Your task to perform on an android device: turn off location history Image 0: 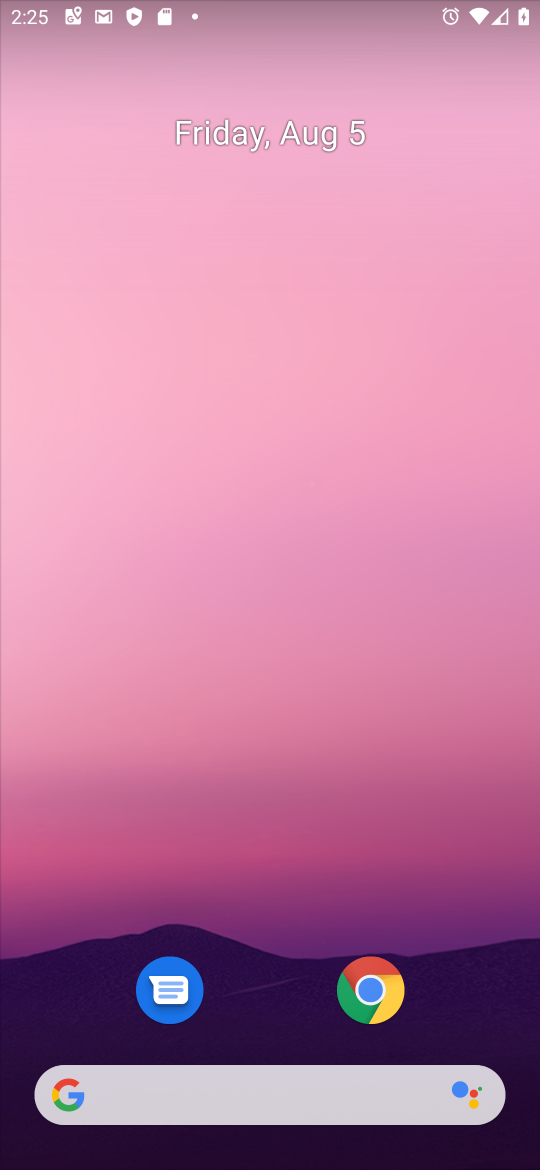
Step 0: drag from (294, 1092) to (345, 125)
Your task to perform on an android device: turn off location history Image 1: 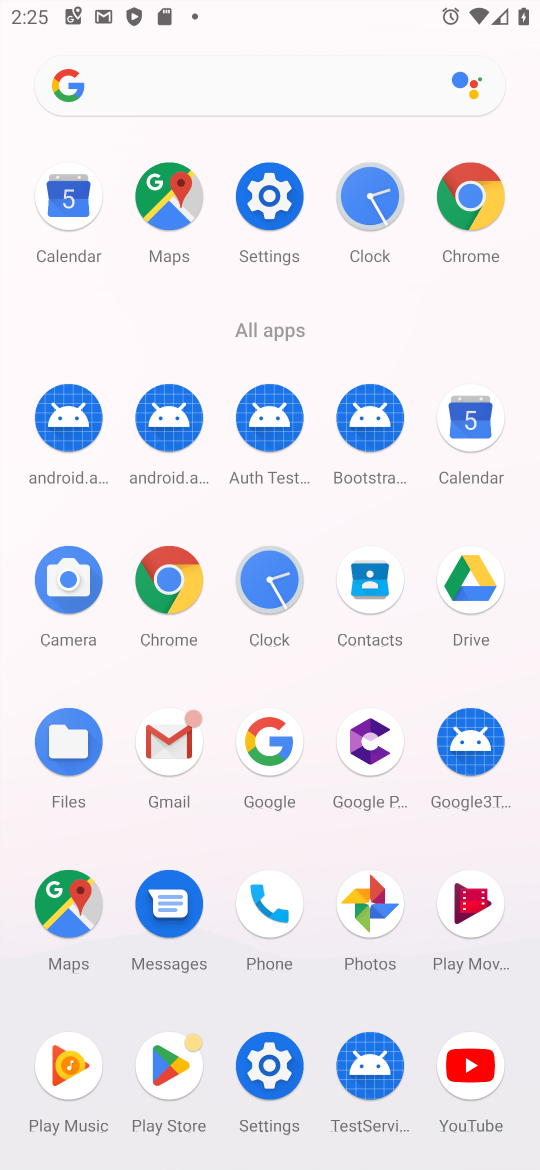
Step 1: click (289, 1062)
Your task to perform on an android device: turn off location history Image 2: 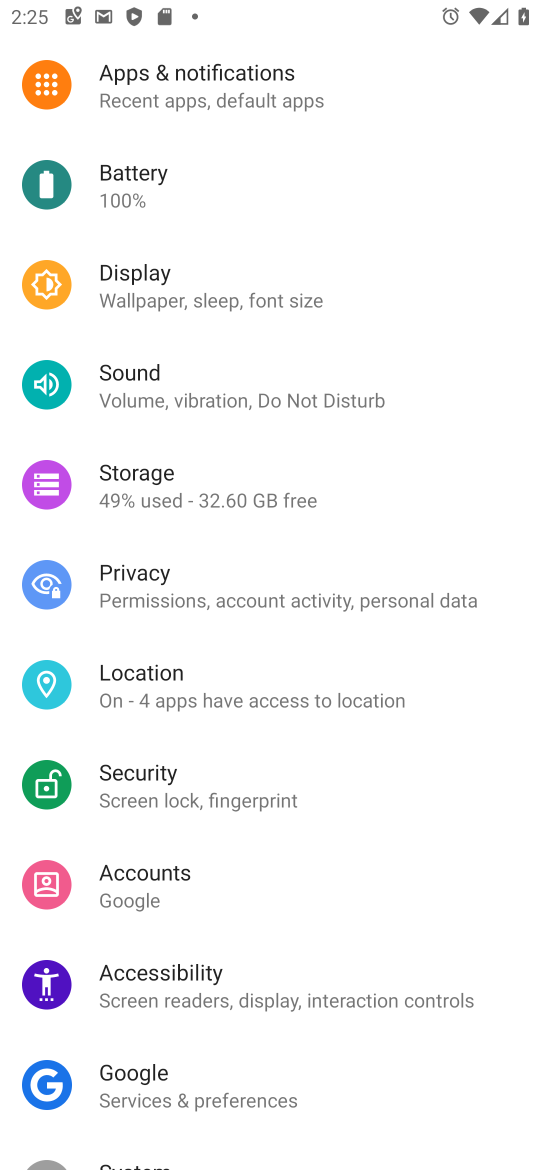
Step 2: click (234, 700)
Your task to perform on an android device: turn off location history Image 3: 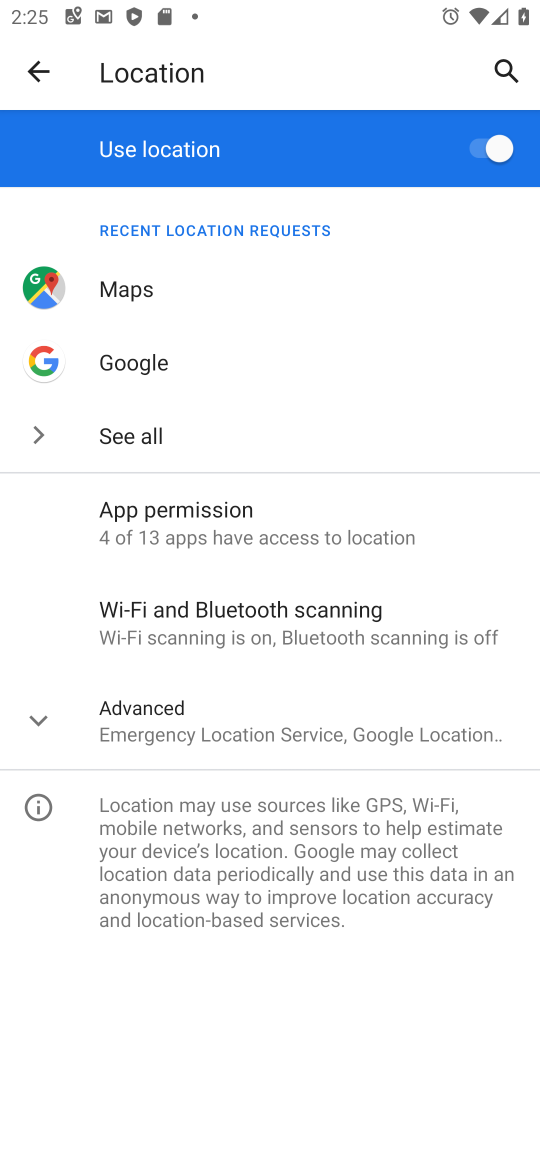
Step 3: click (215, 714)
Your task to perform on an android device: turn off location history Image 4: 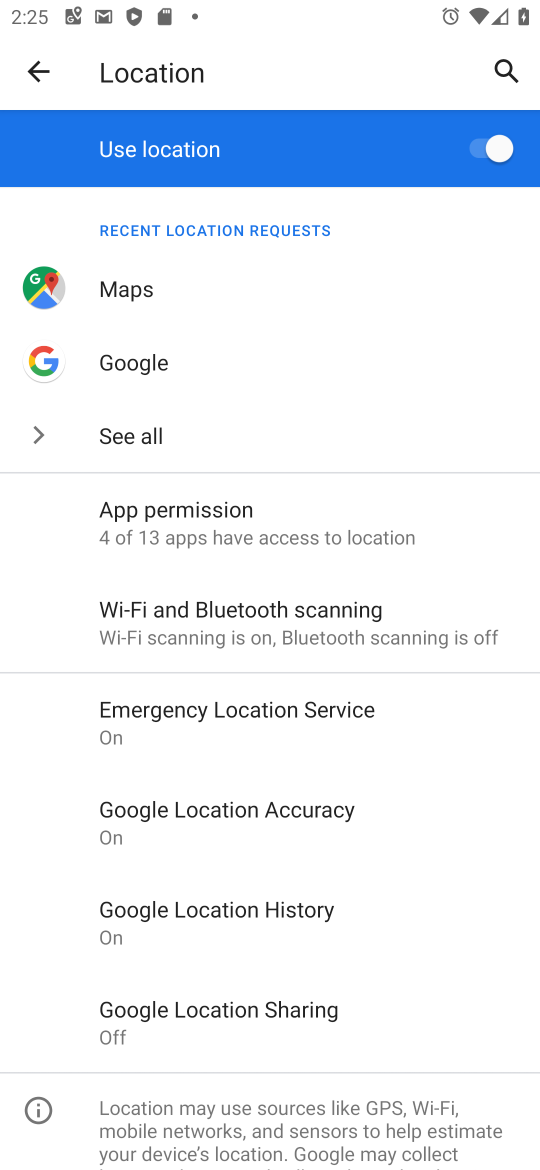
Step 4: click (328, 900)
Your task to perform on an android device: turn off location history Image 5: 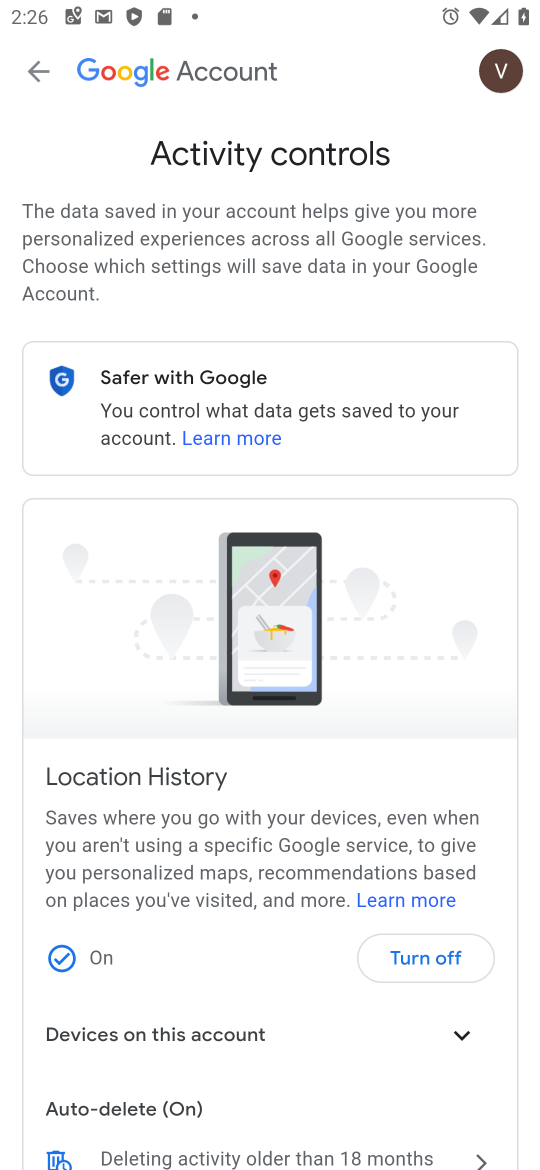
Step 5: click (422, 965)
Your task to perform on an android device: turn off location history Image 6: 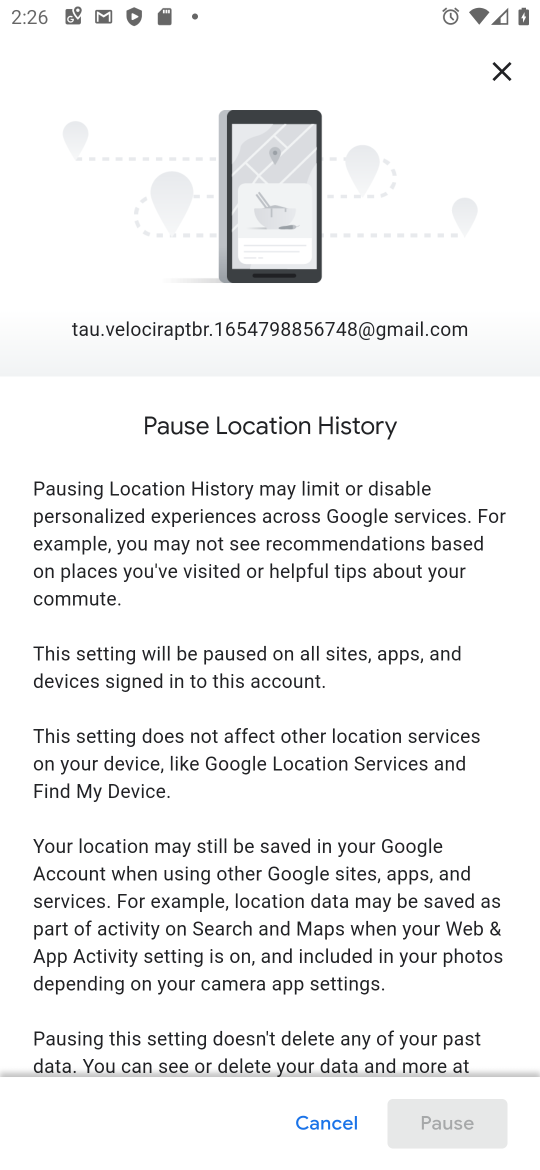
Step 6: drag from (376, 680) to (376, 176)
Your task to perform on an android device: turn off location history Image 7: 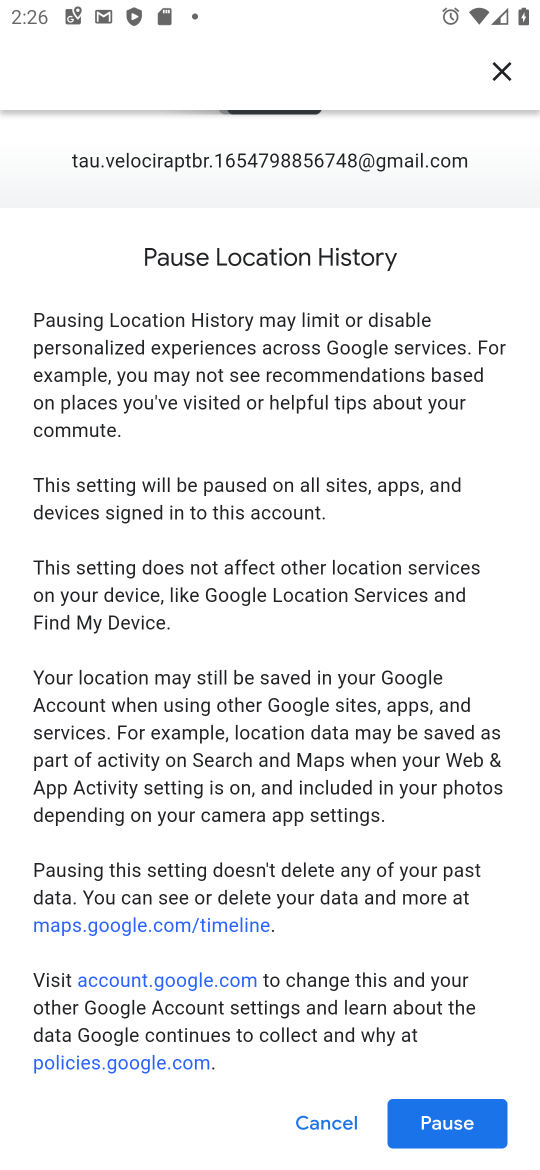
Step 7: drag from (377, 591) to (382, 459)
Your task to perform on an android device: turn off location history Image 8: 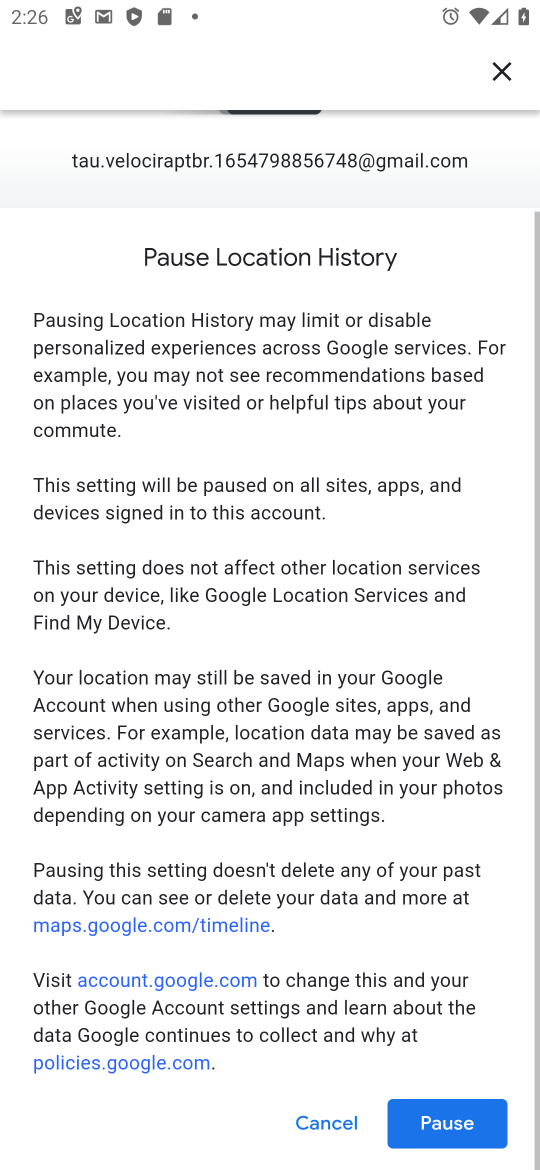
Step 8: click (459, 1105)
Your task to perform on an android device: turn off location history Image 9: 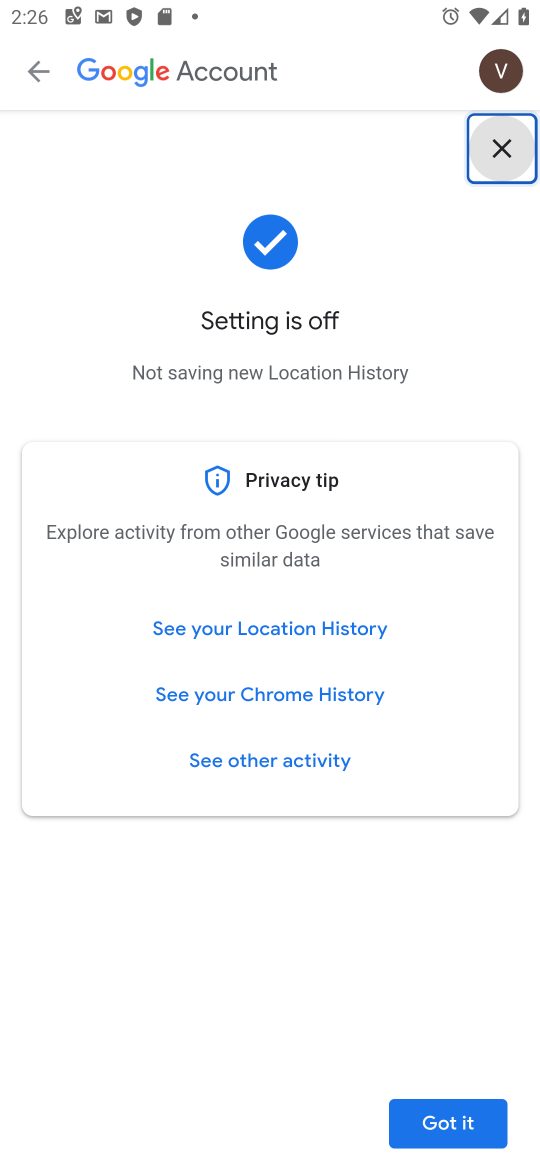
Step 9: click (458, 1113)
Your task to perform on an android device: turn off location history Image 10: 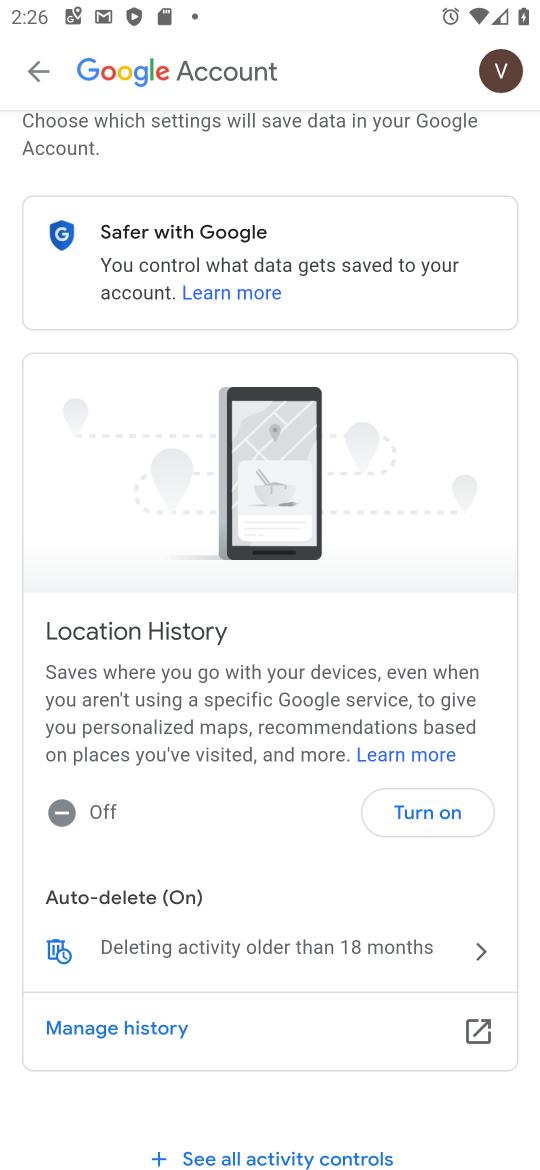
Step 10: task complete